Your task to perform on an android device: turn pop-ups on in chrome Image 0: 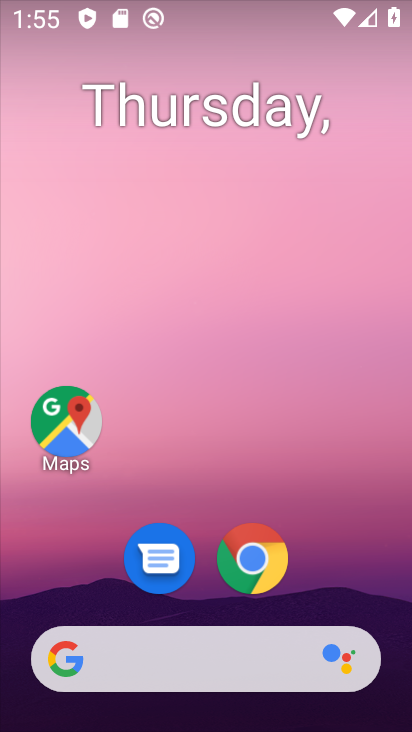
Step 0: click (249, 546)
Your task to perform on an android device: turn pop-ups on in chrome Image 1: 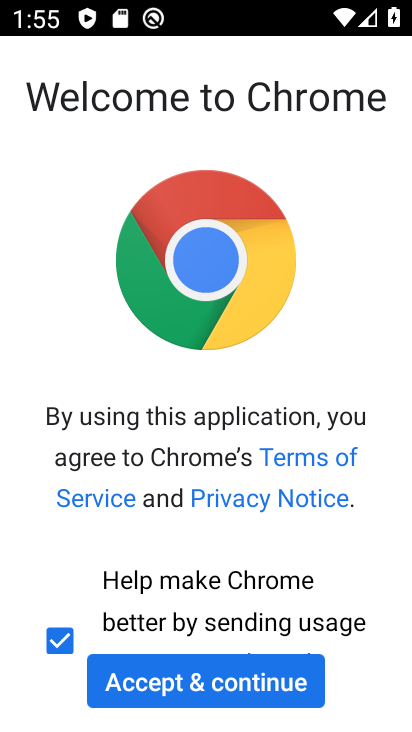
Step 1: click (274, 683)
Your task to perform on an android device: turn pop-ups on in chrome Image 2: 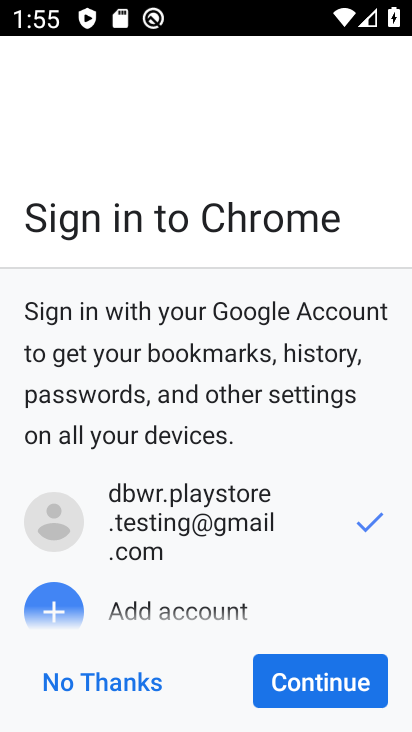
Step 2: click (301, 679)
Your task to perform on an android device: turn pop-ups on in chrome Image 3: 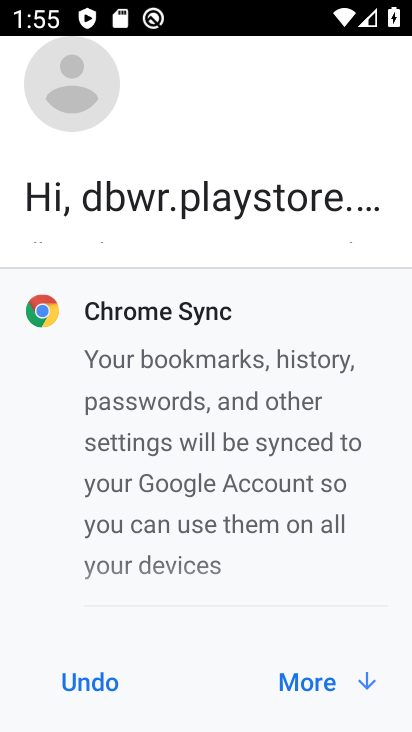
Step 3: click (301, 677)
Your task to perform on an android device: turn pop-ups on in chrome Image 4: 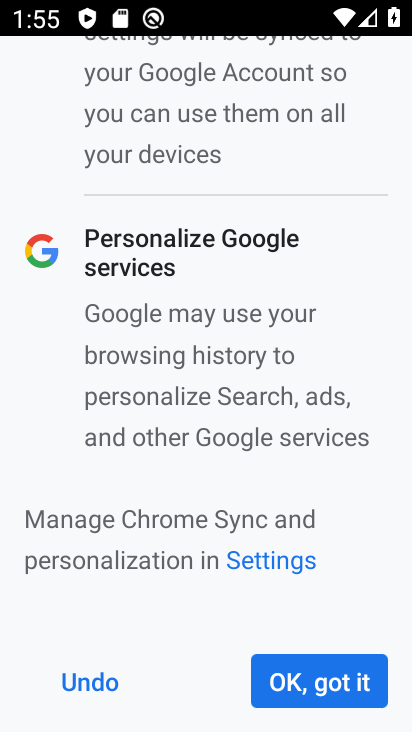
Step 4: click (301, 675)
Your task to perform on an android device: turn pop-ups on in chrome Image 5: 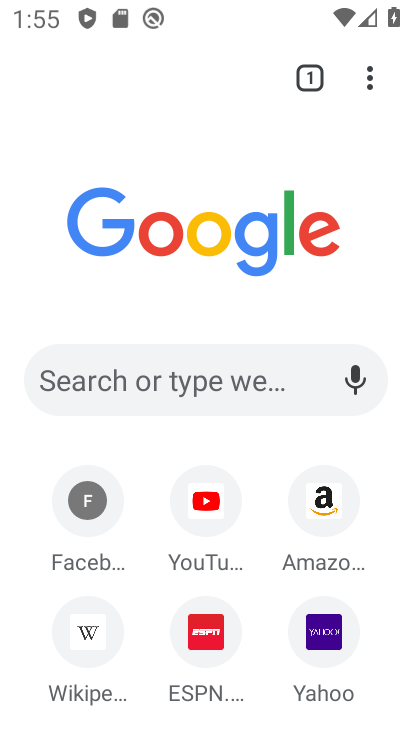
Step 5: click (367, 85)
Your task to perform on an android device: turn pop-ups on in chrome Image 6: 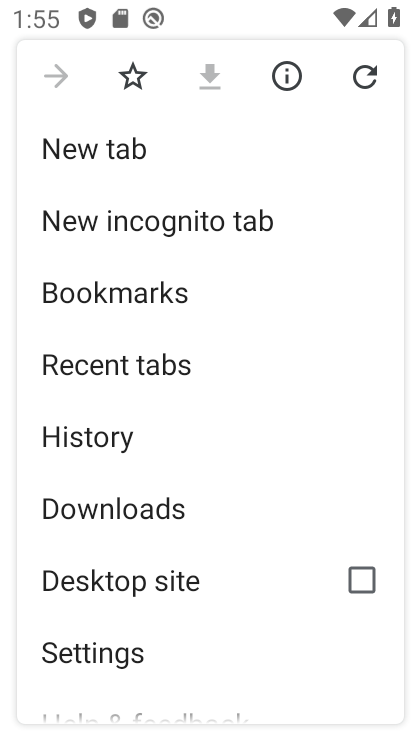
Step 6: drag from (232, 544) to (239, 364)
Your task to perform on an android device: turn pop-ups on in chrome Image 7: 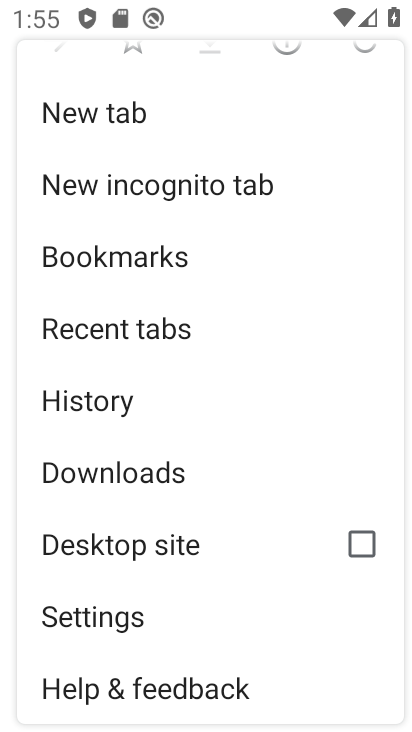
Step 7: click (126, 615)
Your task to perform on an android device: turn pop-ups on in chrome Image 8: 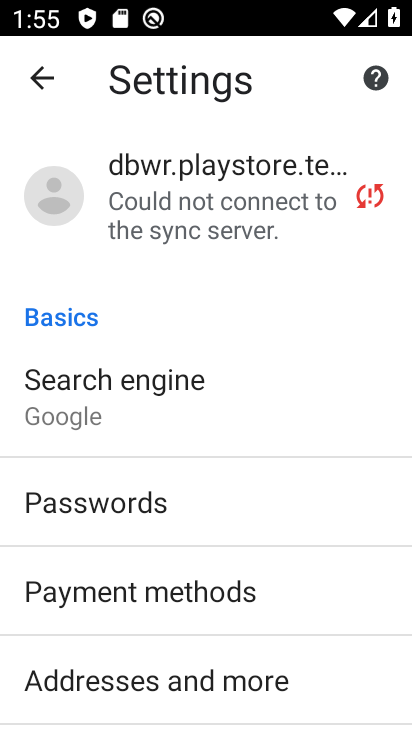
Step 8: drag from (199, 565) to (229, 191)
Your task to perform on an android device: turn pop-ups on in chrome Image 9: 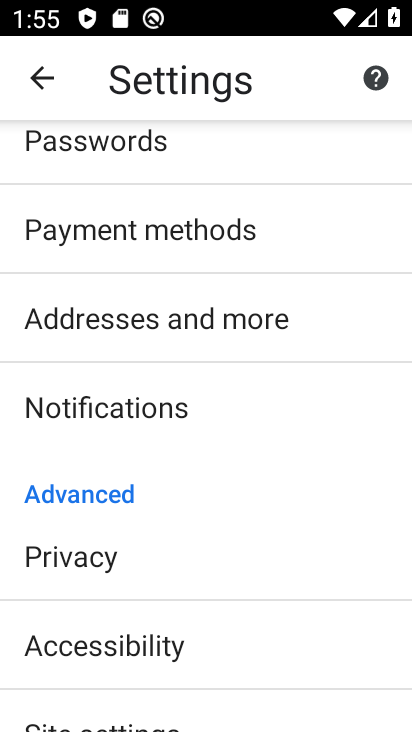
Step 9: drag from (232, 476) to (238, 226)
Your task to perform on an android device: turn pop-ups on in chrome Image 10: 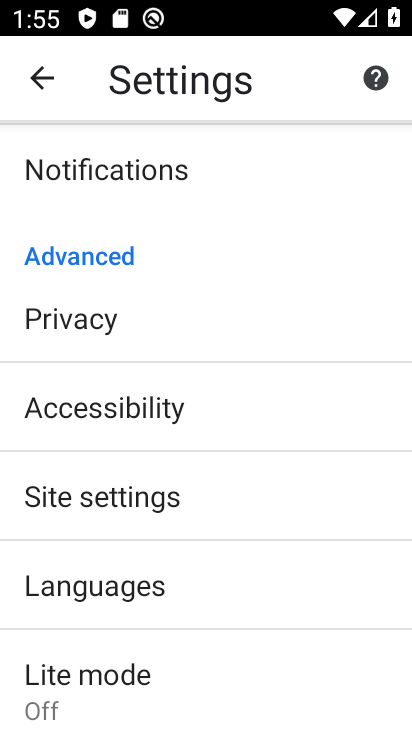
Step 10: click (197, 494)
Your task to perform on an android device: turn pop-ups on in chrome Image 11: 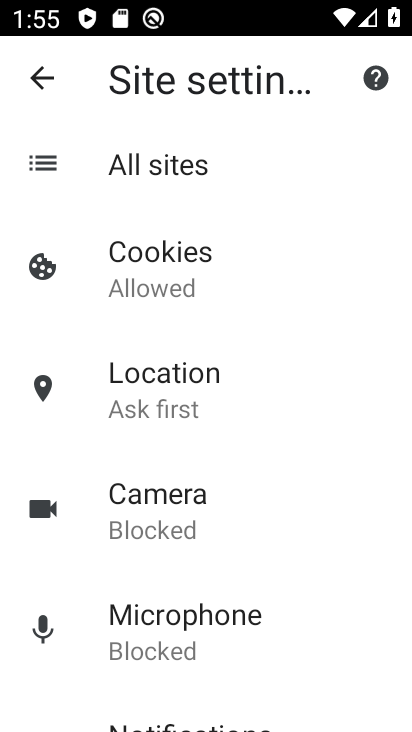
Step 11: drag from (235, 558) to (253, 143)
Your task to perform on an android device: turn pop-ups on in chrome Image 12: 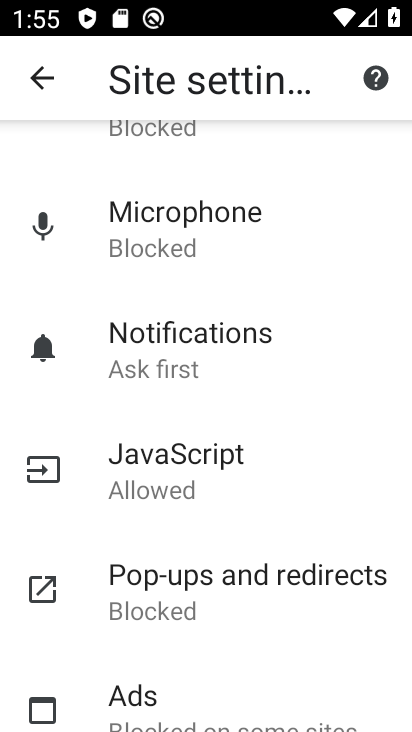
Step 12: click (246, 581)
Your task to perform on an android device: turn pop-ups on in chrome Image 13: 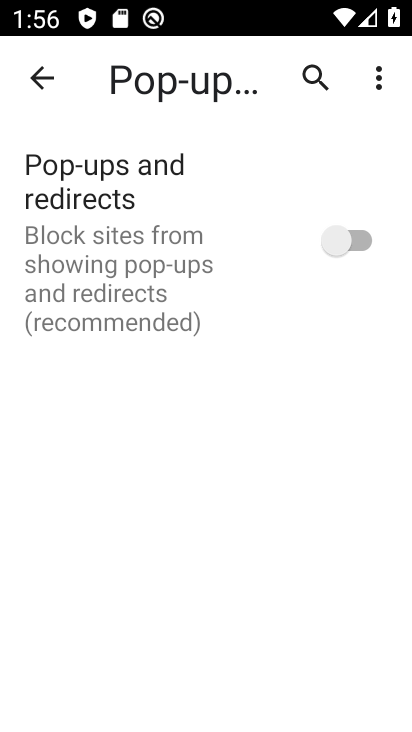
Step 13: click (357, 234)
Your task to perform on an android device: turn pop-ups on in chrome Image 14: 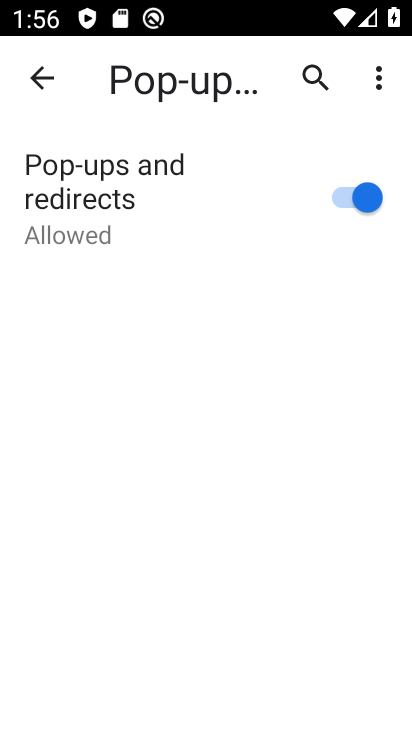
Step 14: task complete